Your task to perform on an android device: Open the Play Movies app and select the watchlist tab. Image 0: 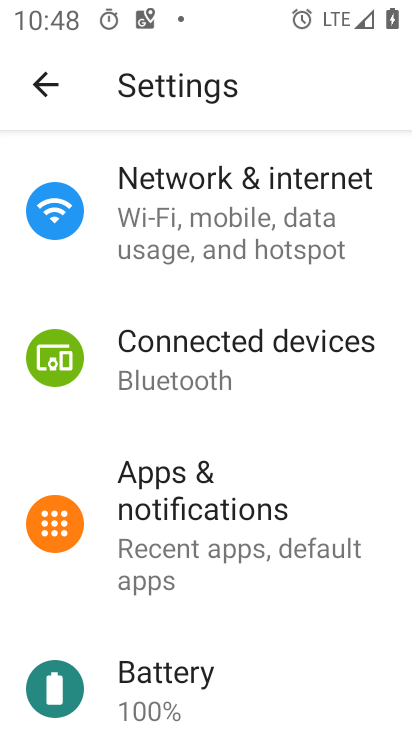
Step 0: press home button
Your task to perform on an android device: Open the Play Movies app and select the watchlist tab. Image 1: 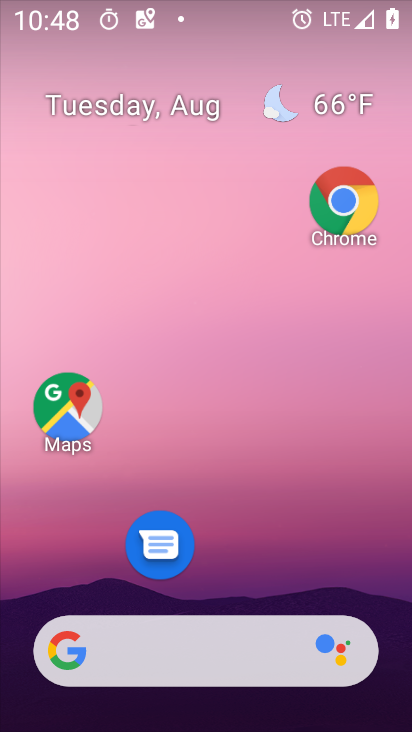
Step 1: drag from (219, 668) to (226, 103)
Your task to perform on an android device: Open the Play Movies app and select the watchlist tab. Image 2: 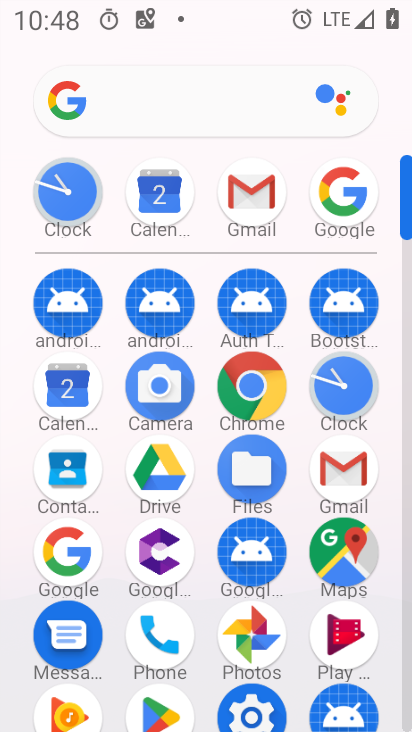
Step 2: drag from (188, 540) to (189, 97)
Your task to perform on an android device: Open the Play Movies app and select the watchlist tab. Image 3: 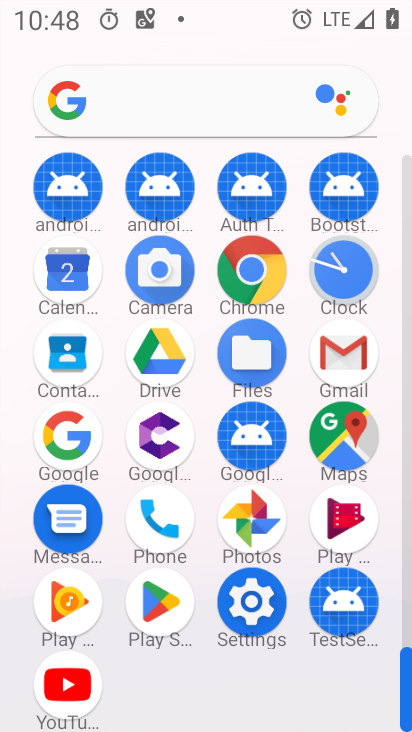
Step 3: click (339, 524)
Your task to perform on an android device: Open the Play Movies app and select the watchlist tab. Image 4: 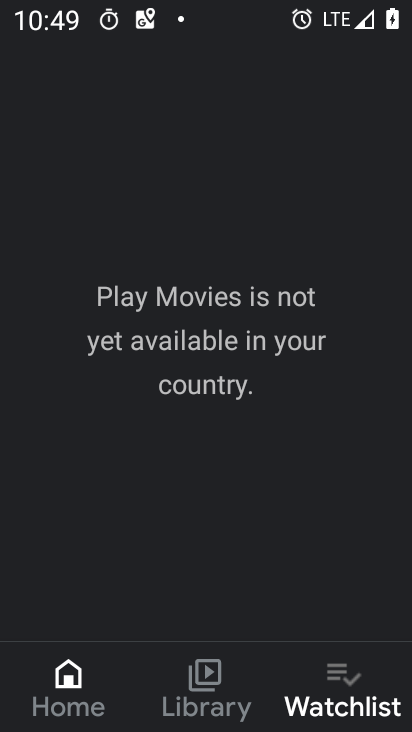
Step 4: task complete